Your task to perform on an android device: add a label to a message in the gmail app Image 0: 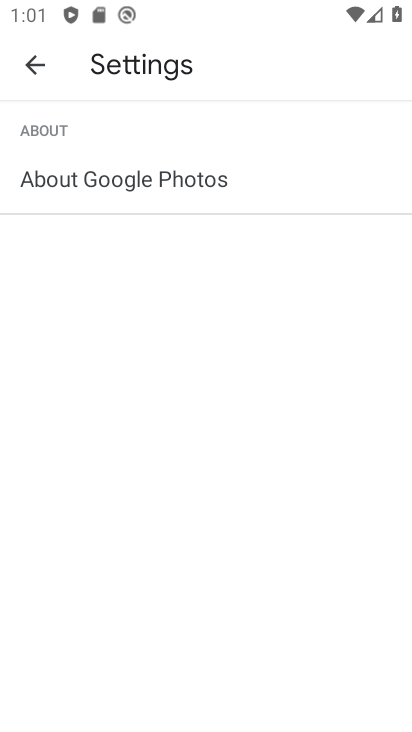
Step 0: press back button
Your task to perform on an android device: add a label to a message in the gmail app Image 1: 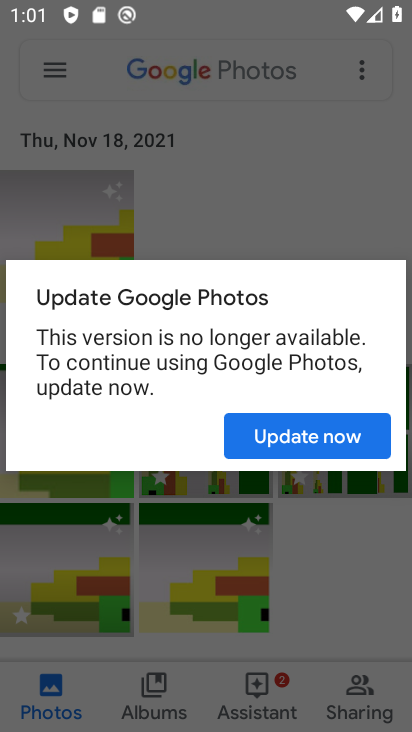
Step 1: press home button
Your task to perform on an android device: add a label to a message in the gmail app Image 2: 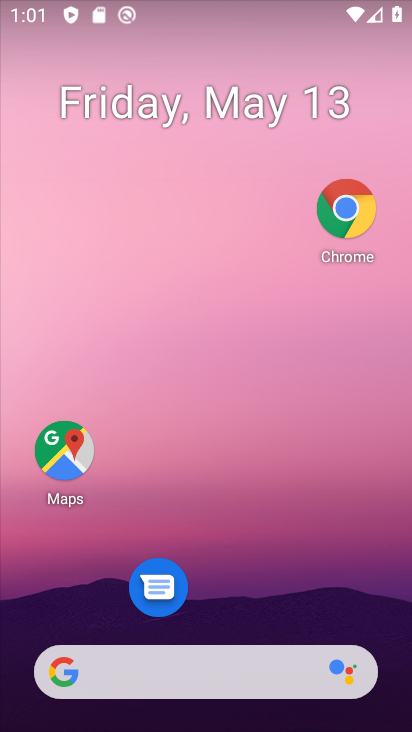
Step 2: drag from (211, 624) to (254, 19)
Your task to perform on an android device: add a label to a message in the gmail app Image 3: 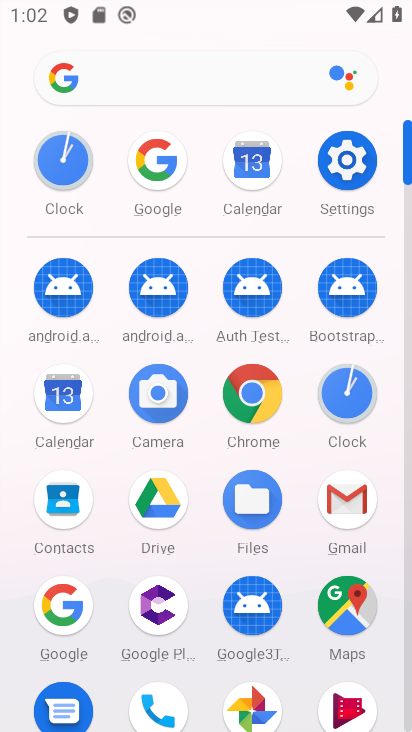
Step 3: click (353, 505)
Your task to perform on an android device: add a label to a message in the gmail app Image 4: 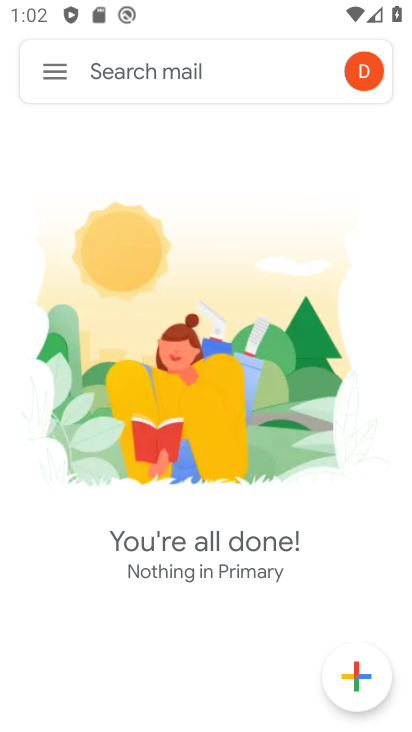
Step 4: click (61, 69)
Your task to perform on an android device: add a label to a message in the gmail app Image 5: 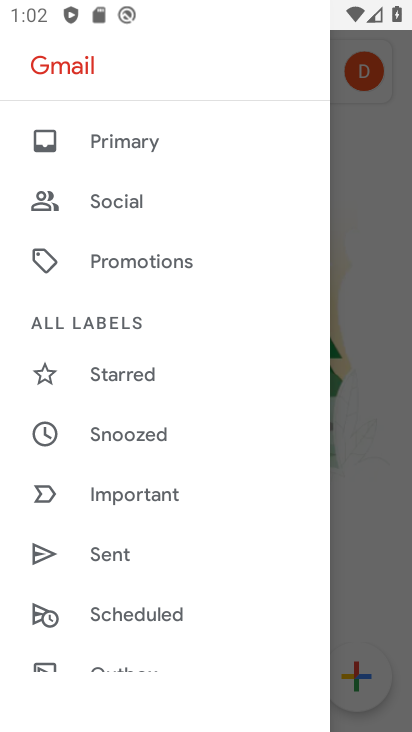
Step 5: drag from (135, 629) to (224, 132)
Your task to perform on an android device: add a label to a message in the gmail app Image 6: 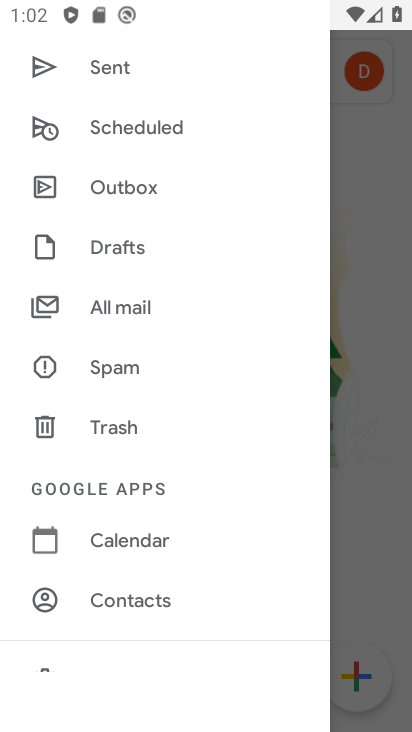
Step 6: click (139, 303)
Your task to perform on an android device: add a label to a message in the gmail app Image 7: 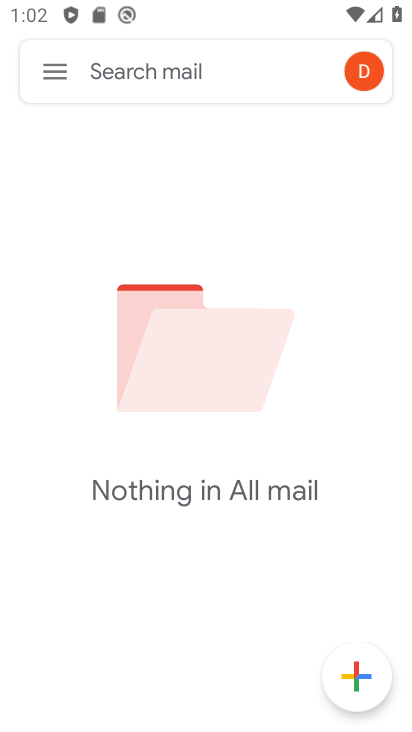
Step 7: task complete